Your task to perform on an android device: Show me productivity apps on the Play Store Image 0: 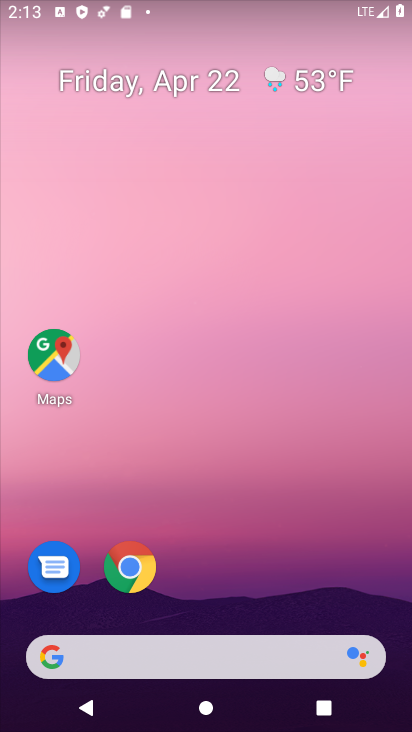
Step 0: drag from (354, 596) to (204, 92)
Your task to perform on an android device: Show me productivity apps on the Play Store Image 1: 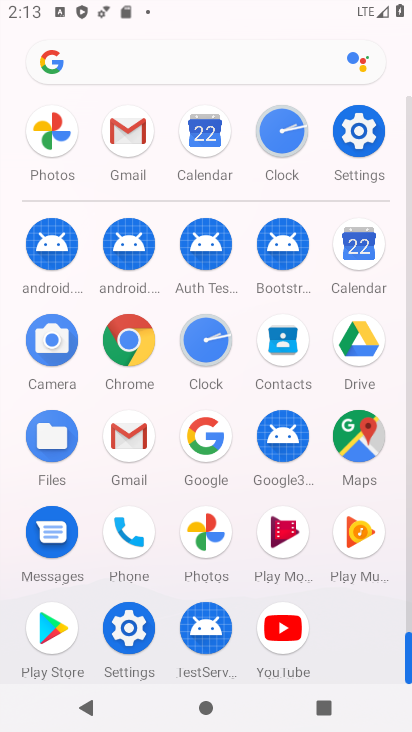
Step 1: click (49, 631)
Your task to perform on an android device: Show me productivity apps on the Play Store Image 2: 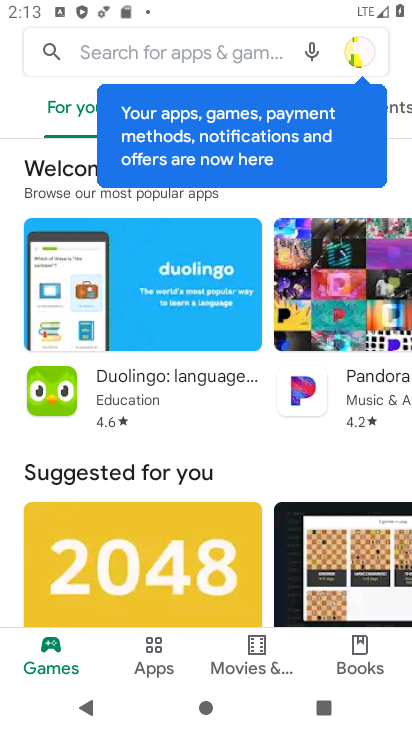
Step 2: click (160, 640)
Your task to perform on an android device: Show me productivity apps on the Play Store Image 3: 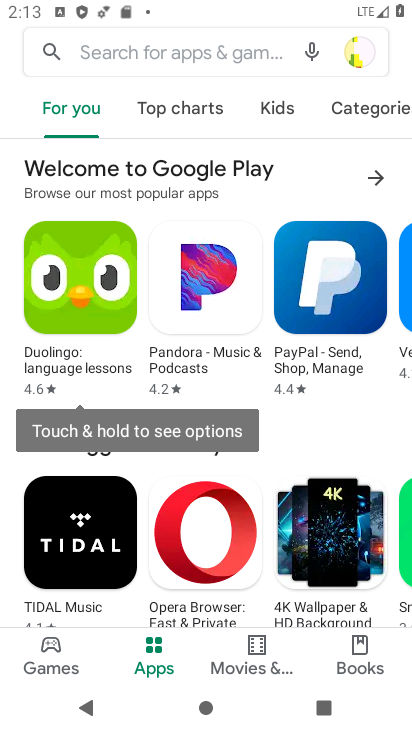
Step 3: click (374, 108)
Your task to perform on an android device: Show me productivity apps on the Play Store Image 4: 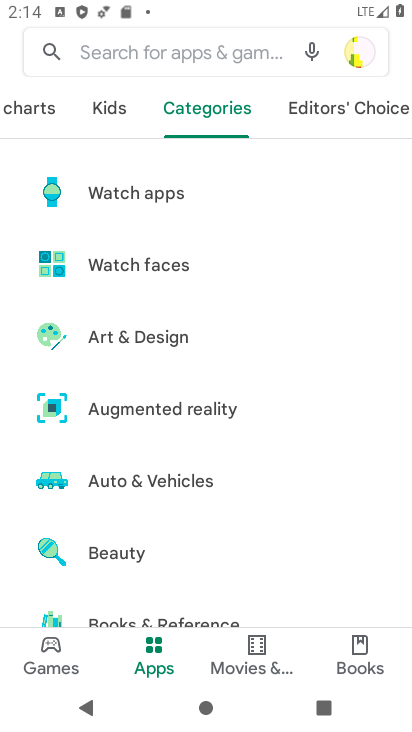
Step 4: drag from (228, 534) to (282, 188)
Your task to perform on an android device: Show me productivity apps on the Play Store Image 5: 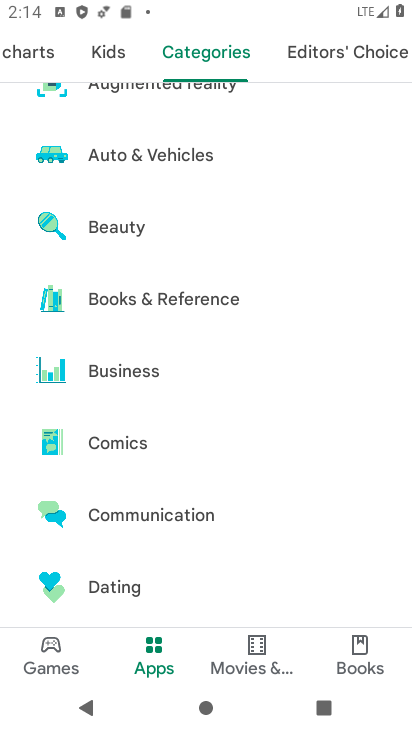
Step 5: drag from (233, 536) to (293, 144)
Your task to perform on an android device: Show me productivity apps on the Play Store Image 6: 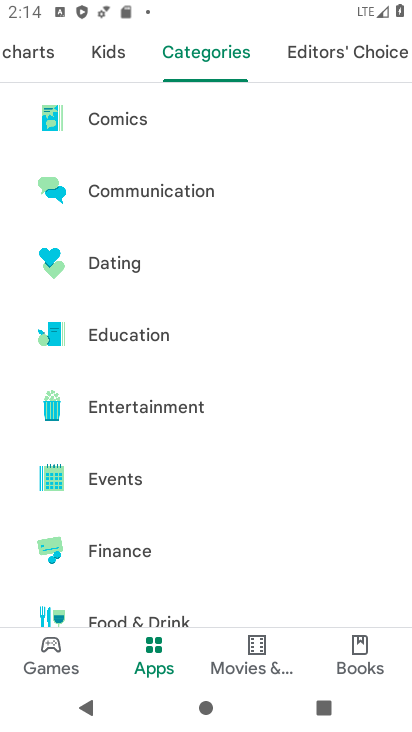
Step 6: drag from (200, 543) to (286, 114)
Your task to perform on an android device: Show me productivity apps on the Play Store Image 7: 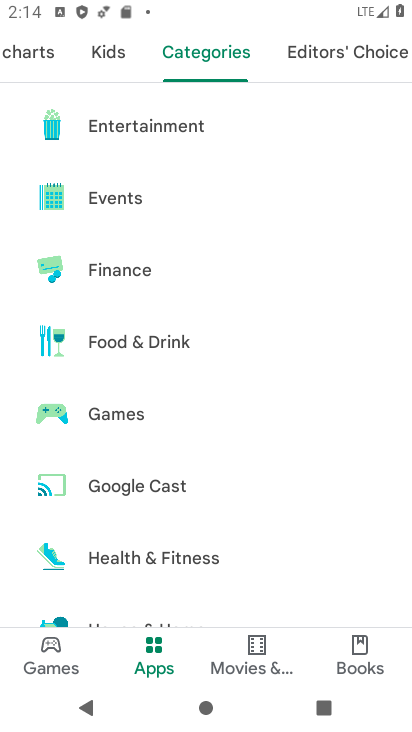
Step 7: drag from (223, 390) to (279, 154)
Your task to perform on an android device: Show me productivity apps on the Play Store Image 8: 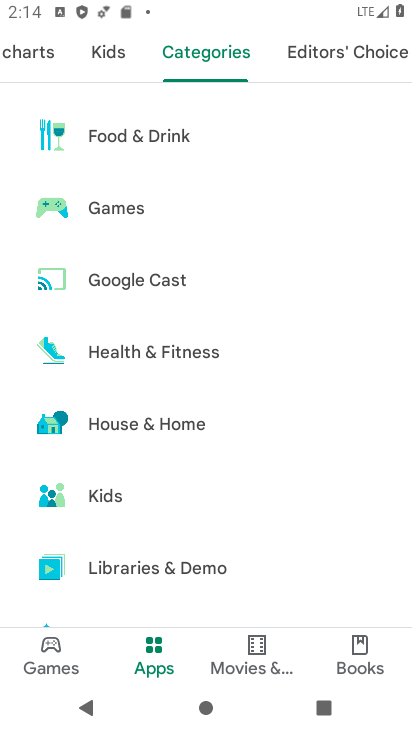
Step 8: drag from (237, 533) to (281, 145)
Your task to perform on an android device: Show me productivity apps on the Play Store Image 9: 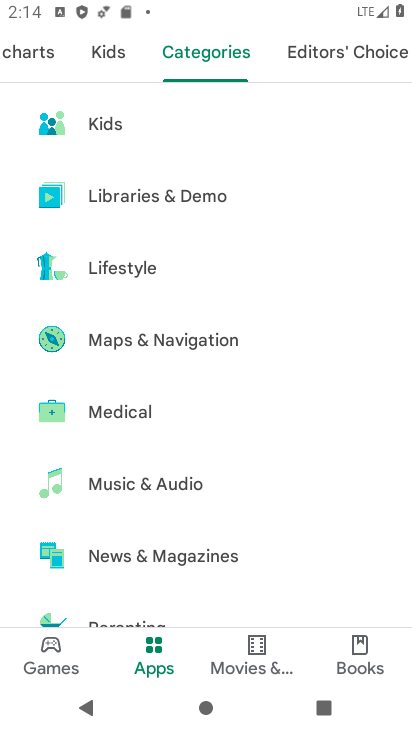
Step 9: drag from (282, 566) to (240, 149)
Your task to perform on an android device: Show me productivity apps on the Play Store Image 10: 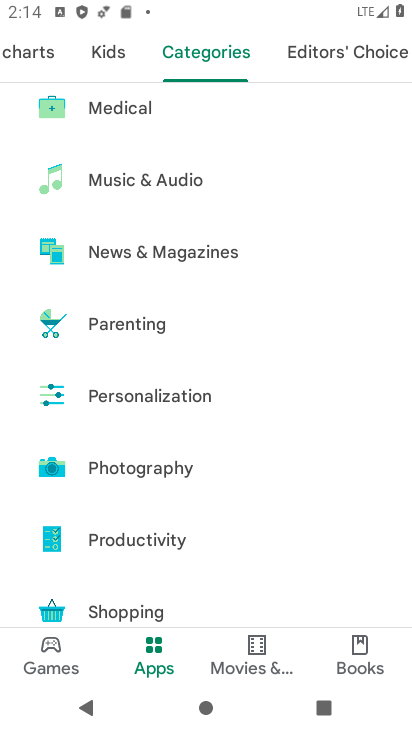
Step 10: click (121, 537)
Your task to perform on an android device: Show me productivity apps on the Play Store Image 11: 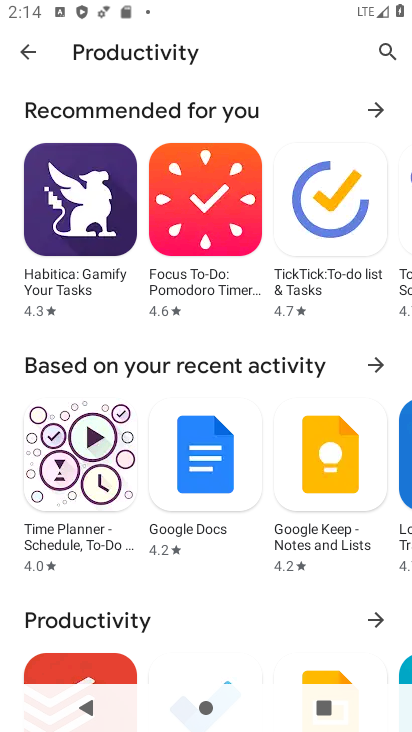
Step 11: task complete